Your task to perform on an android device: Go to Amazon Image 0: 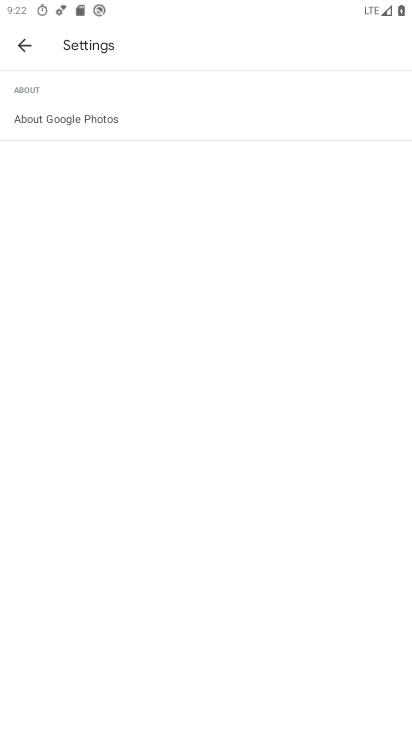
Step 0: press home button
Your task to perform on an android device: Go to Amazon Image 1: 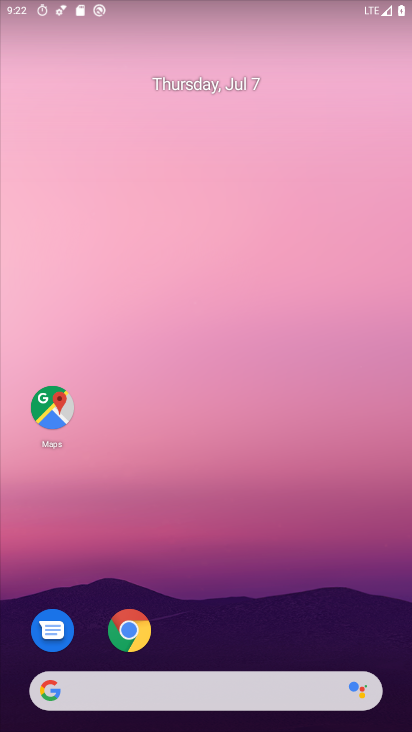
Step 1: click (141, 683)
Your task to perform on an android device: Go to Amazon Image 2: 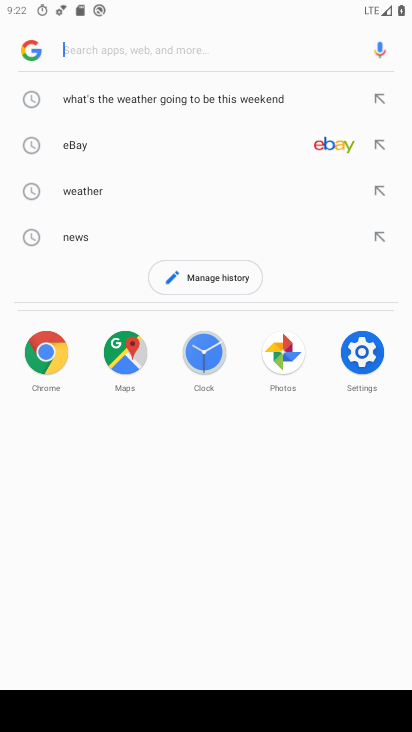
Step 2: type "Amazon"
Your task to perform on an android device: Go to Amazon Image 3: 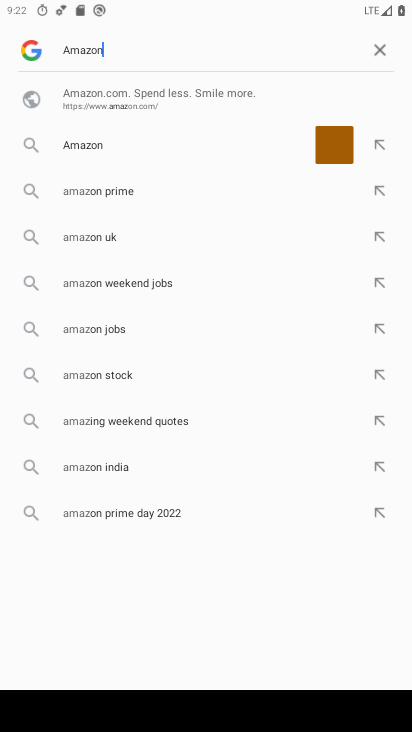
Step 3: type ""
Your task to perform on an android device: Go to Amazon Image 4: 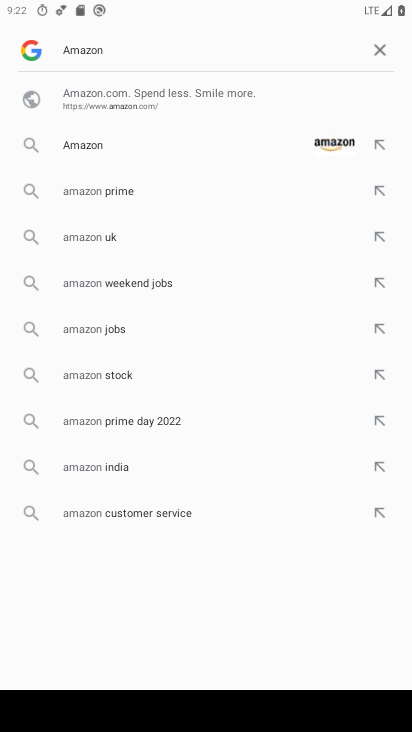
Step 4: click (75, 148)
Your task to perform on an android device: Go to Amazon Image 5: 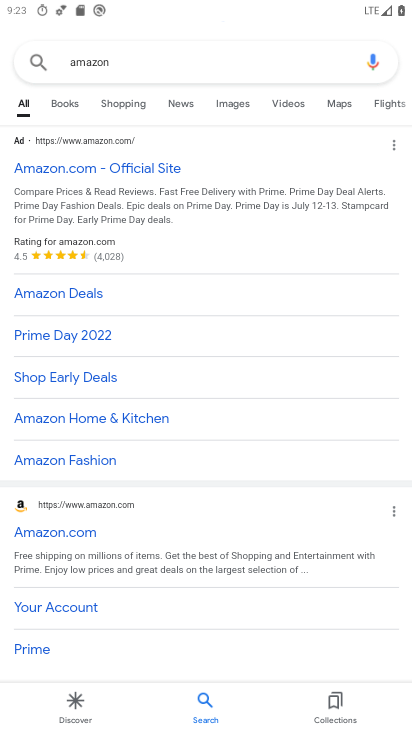
Step 5: task complete